Your task to perform on an android device: turn on notifications settings in the gmail app Image 0: 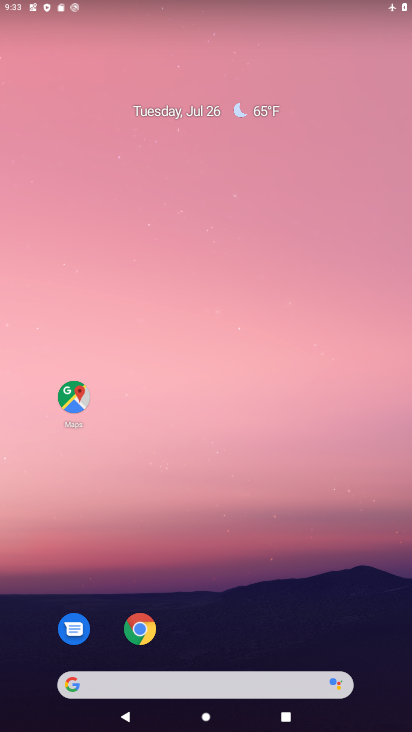
Step 0: drag from (300, 617) to (195, 6)
Your task to perform on an android device: turn on notifications settings in the gmail app Image 1: 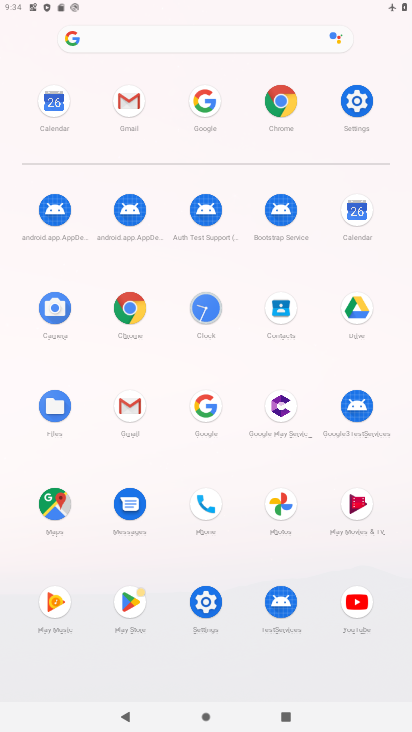
Step 1: click (130, 107)
Your task to perform on an android device: turn on notifications settings in the gmail app Image 2: 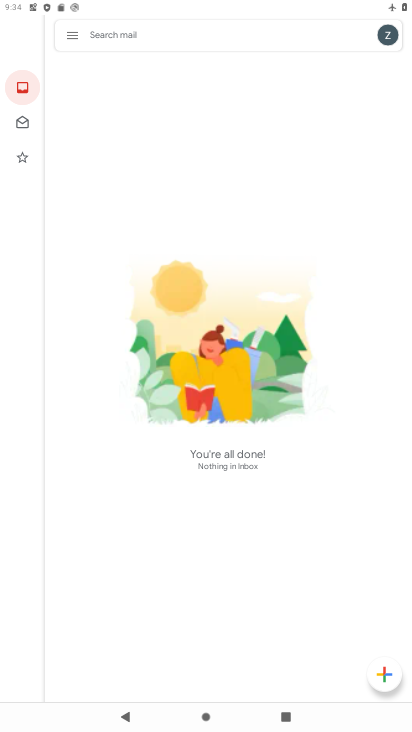
Step 2: click (62, 27)
Your task to perform on an android device: turn on notifications settings in the gmail app Image 3: 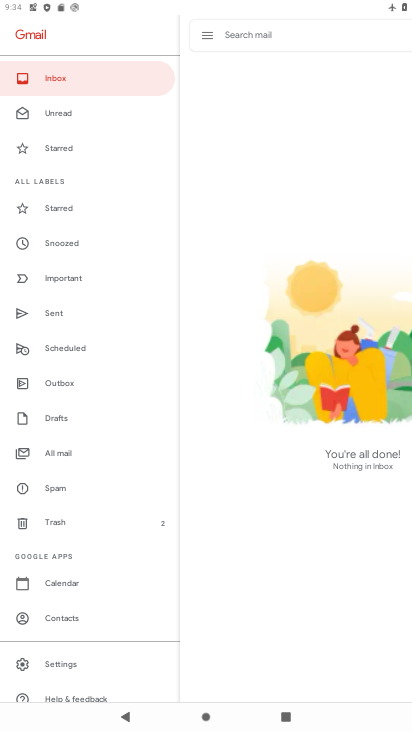
Step 3: click (71, 671)
Your task to perform on an android device: turn on notifications settings in the gmail app Image 4: 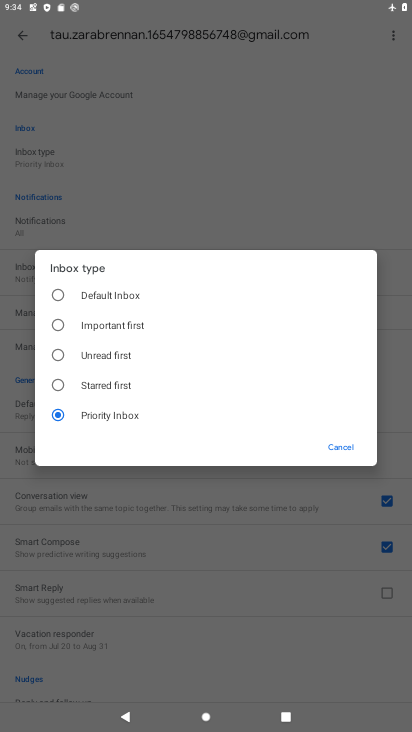
Step 4: click (359, 447)
Your task to perform on an android device: turn on notifications settings in the gmail app Image 5: 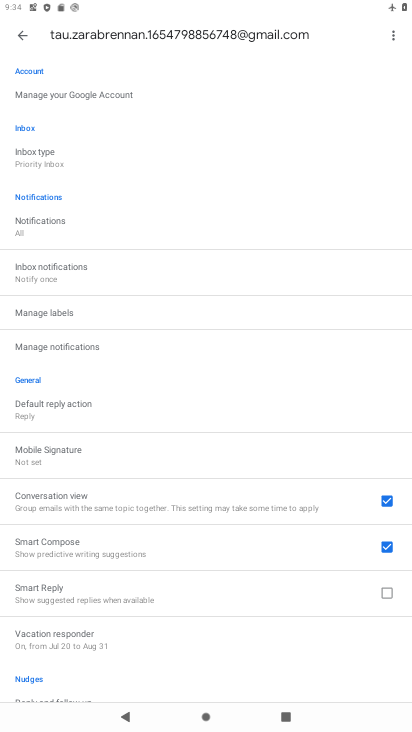
Step 5: drag from (131, 146) to (145, 357)
Your task to perform on an android device: turn on notifications settings in the gmail app Image 6: 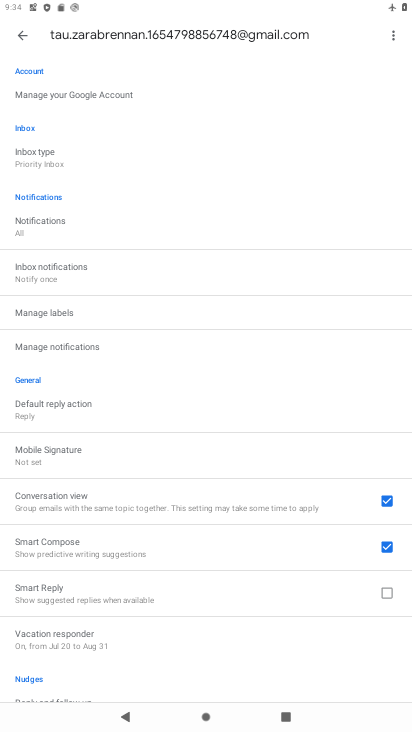
Step 6: click (66, 347)
Your task to perform on an android device: turn on notifications settings in the gmail app Image 7: 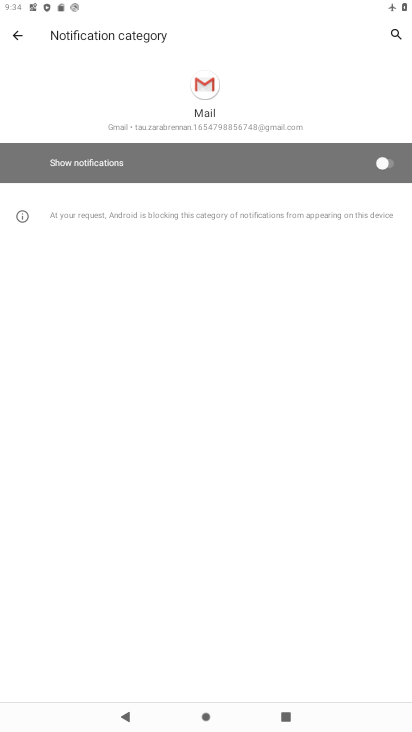
Step 7: click (385, 154)
Your task to perform on an android device: turn on notifications settings in the gmail app Image 8: 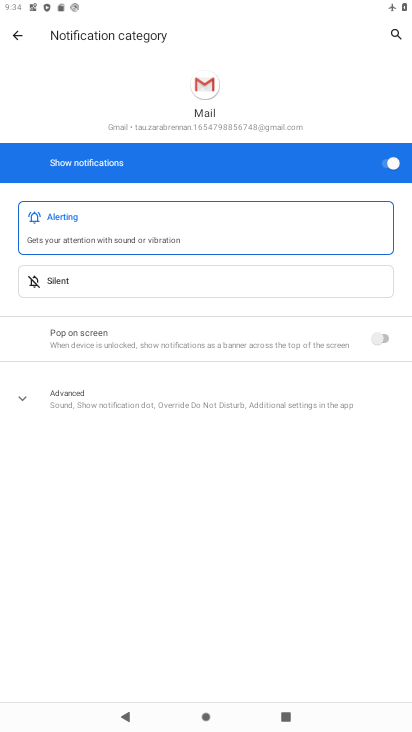
Step 8: task complete